Your task to perform on an android device: Search for pizza restaurants on Maps Image 0: 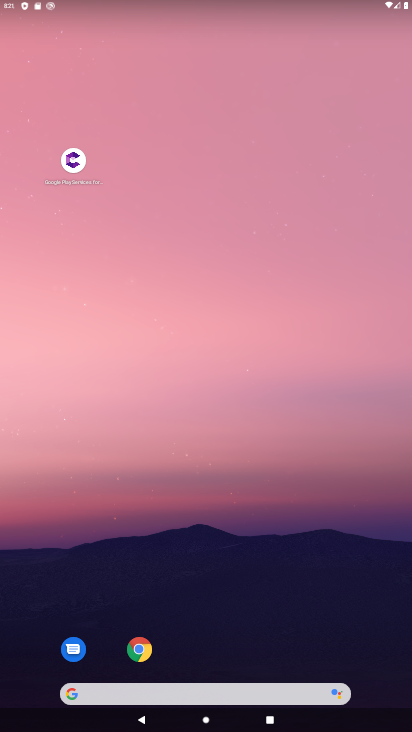
Step 0: drag from (195, 657) to (160, 129)
Your task to perform on an android device: Search for pizza restaurants on Maps Image 1: 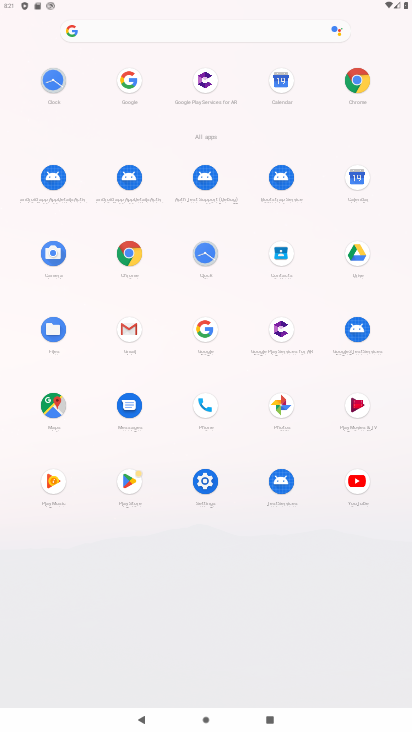
Step 1: click (54, 409)
Your task to perform on an android device: Search for pizza restaurants on Maps Image 2: 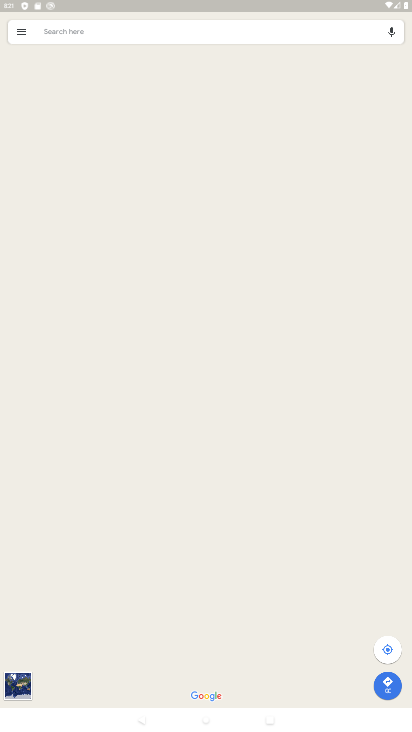
Step 2: click (143, 33)
Your task to perform on an android device: Search for pizza restaurants on Maps Image 3: 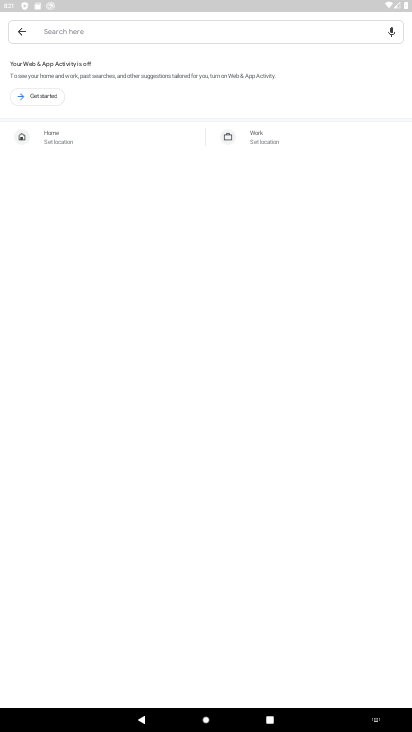
Step 3: click (48, 98)
Your task to perform on an android device: Search for pizza restaurants on Maps Image 4: 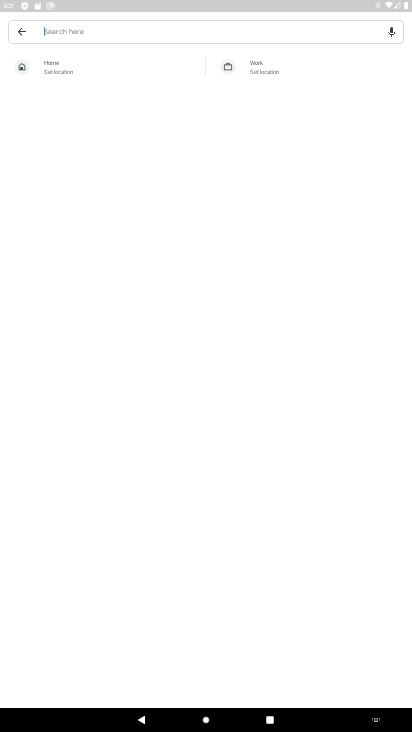
Step 4: type "pizza restaurents"
Your task to perform on an android device: Search for pizza restaurants on Maps Image 5: 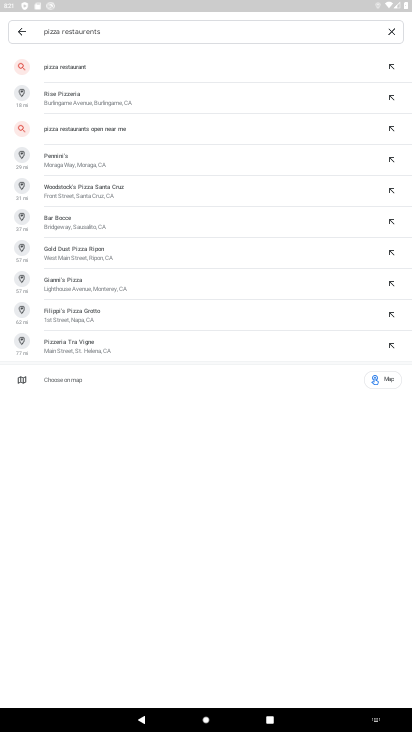
Step 5: click (80, 71)
Your task to perform on an android device: Search for pizza restaurants on Maps Image 6: 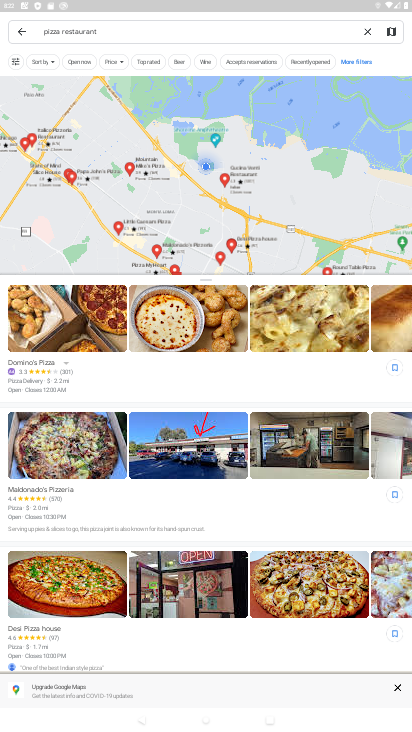
Step 6: task complete